Your task to perform on an android device: Search for pizza restaurants on Maps Image 0: 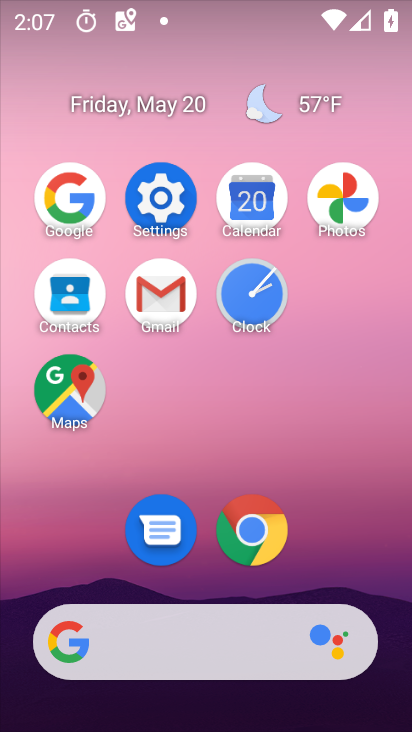
Step 0: click (87, 382)
Your task to perform on an android device: Search for pizza restaurants on Maps Image 1: 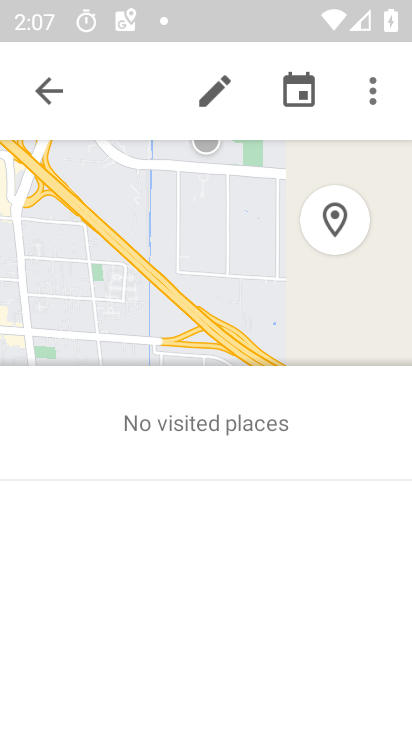
Step 1: click (49, 95)
Your task to perform on an android device: Search for pizza restaurants on Maps Image 2: 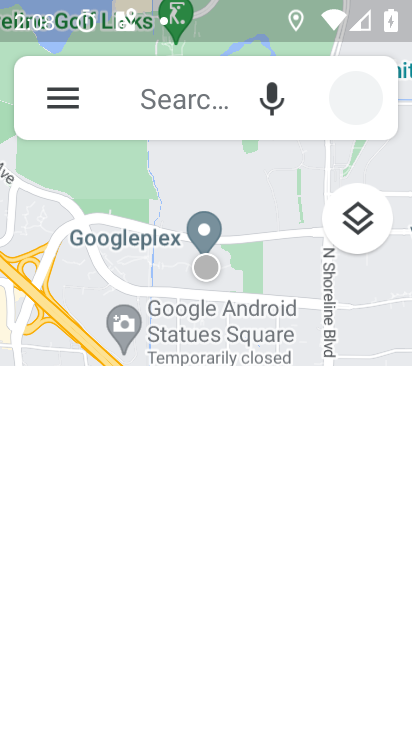
Step 2: click (177, 104)
Your task to perform on an android device: Search for pizza restaurants on Maps Image 3: 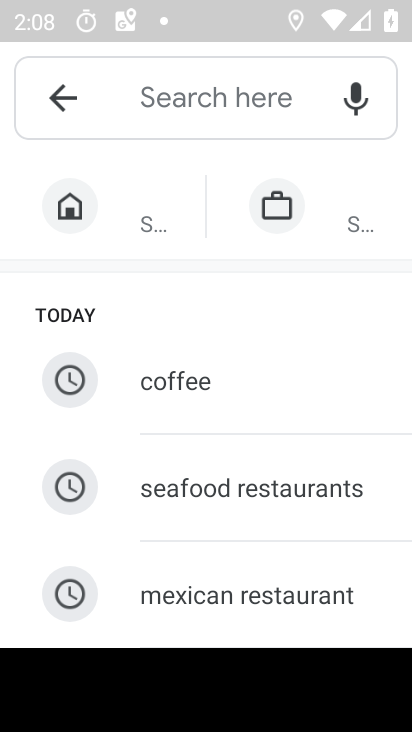
Step 3: drag from (171, 563) to (152, 164)
Your task to perform on an android device: Search for pizza restaurants on Maps Image 4: 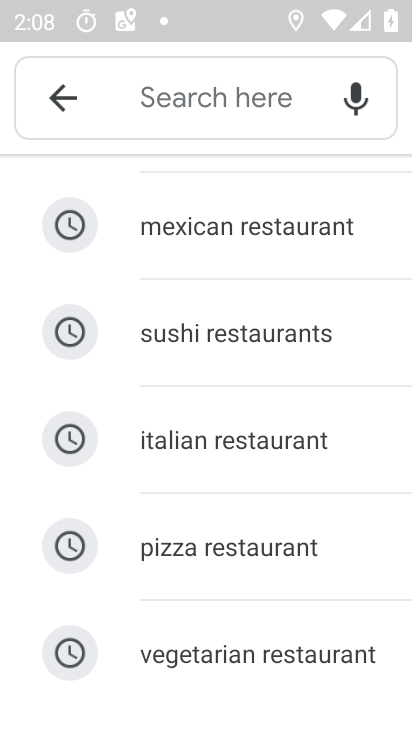
Step 4: click (190, 551)
Your task to perform on an android device: Search for pizza restaurants on Maps Image 5: 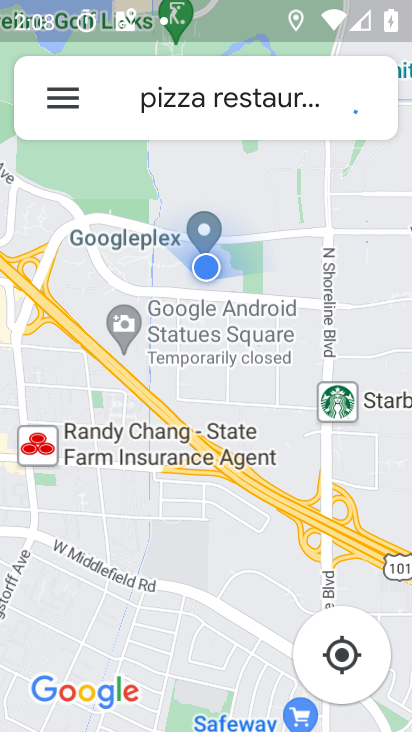
Step 5: task complete